Your task to perform on an android device: Open calendar and show me the first week of next month Image 0: 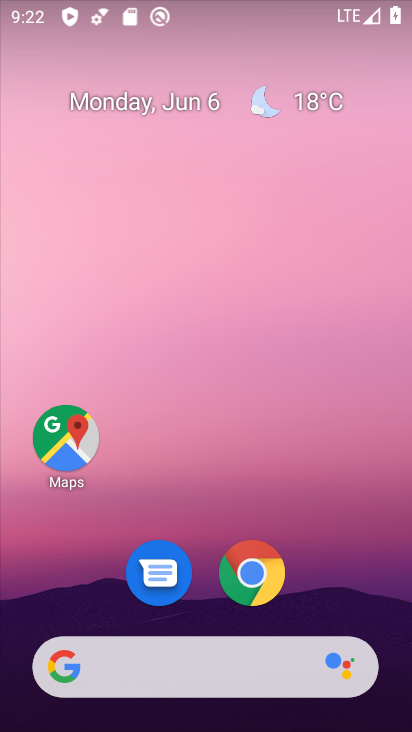
Step 0: drag from (256, 392) to (266, 76)
Your task to perform on an android device: Open calendar and show me the first week of next month Image 1: 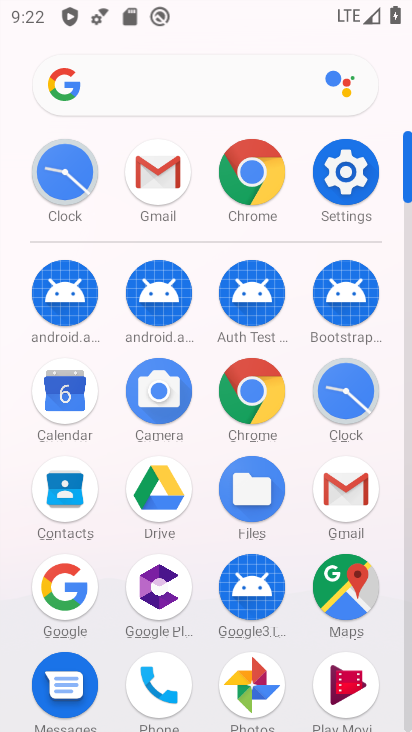
Step 1: click (81, 395)
Your task to perform on an android device: Open calendar and show me the first week of next month Image 2: 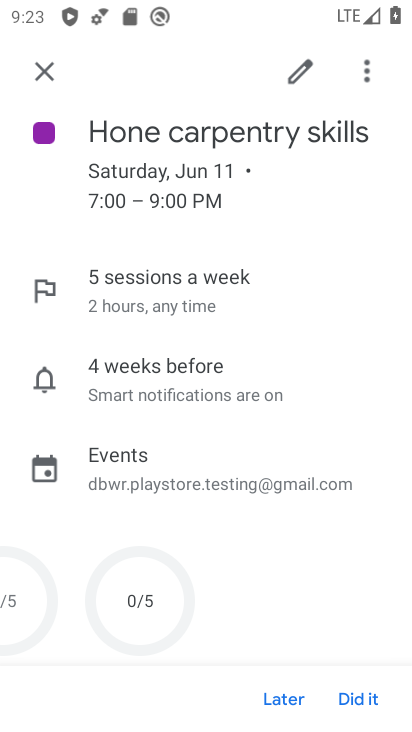
Step 2: click (254, 697)
Your task to perform on an android device: Open calendar and show me the first week of next month Image 3: 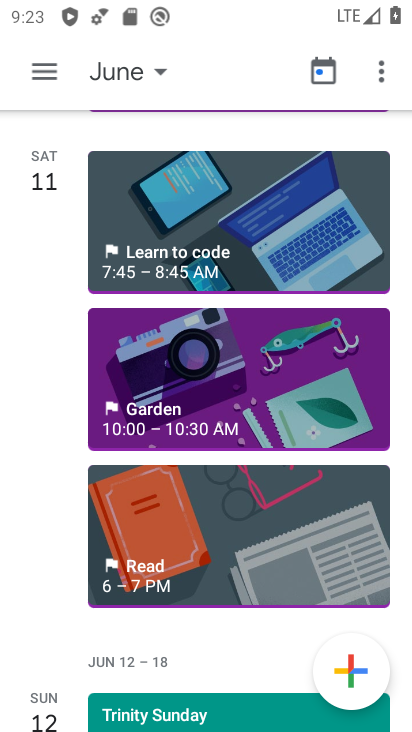
Step 3: click (131, 72)
Your task to perform on an android device: Open calendar and show me the first week of next month Image 4: 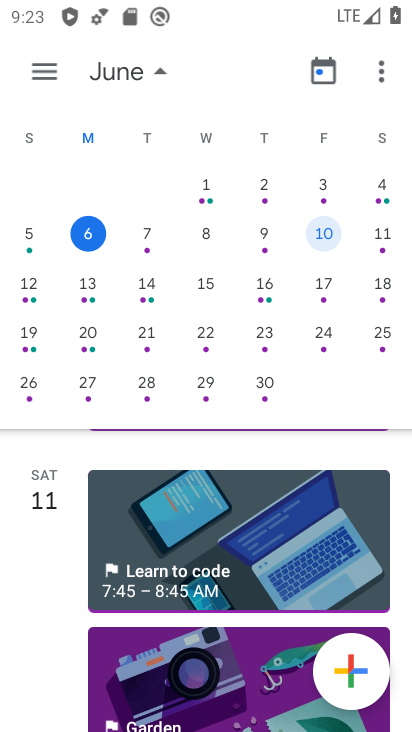
Step 4: drag from (369, 265) to (87, 293)
Your task to perform on an android device: Open calendar and show me the first week of next month Image 5: 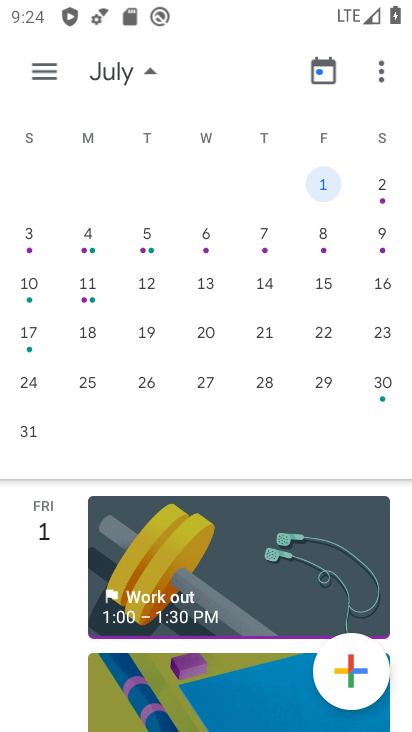
Step 5: click (80, 233)
Your task to perform on an android device: Open calendar and show me the first week of next month Image 6: 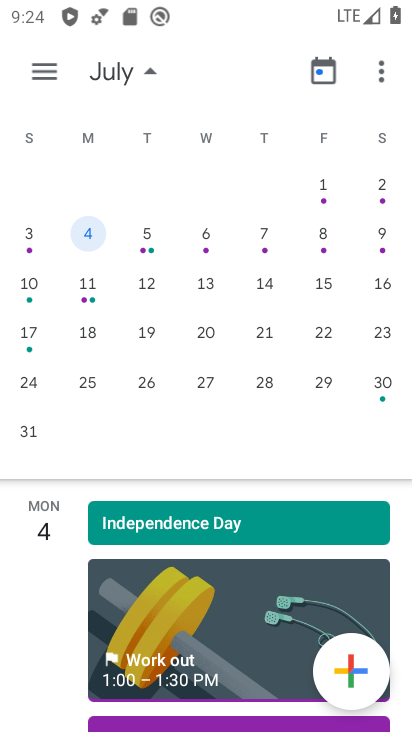
Step 6: task complete